Your task to perform on an android device: Open Maps and search for coffee Image 0: 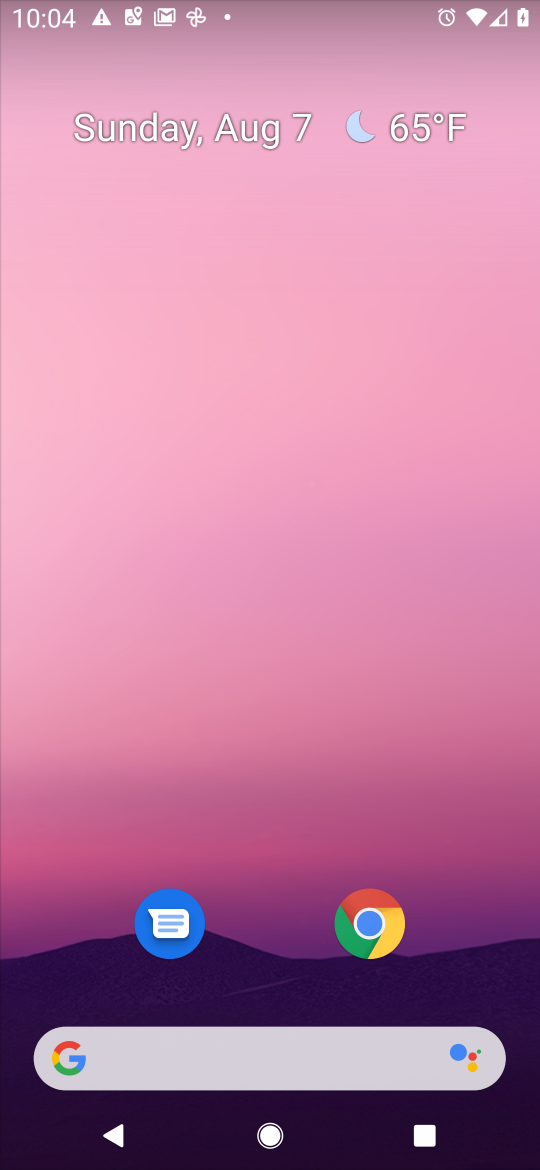
Step 0: drag from (479, 939) to (256, 98)
Your task to perform on an android device: Open Maps and search for coffee Image 1: 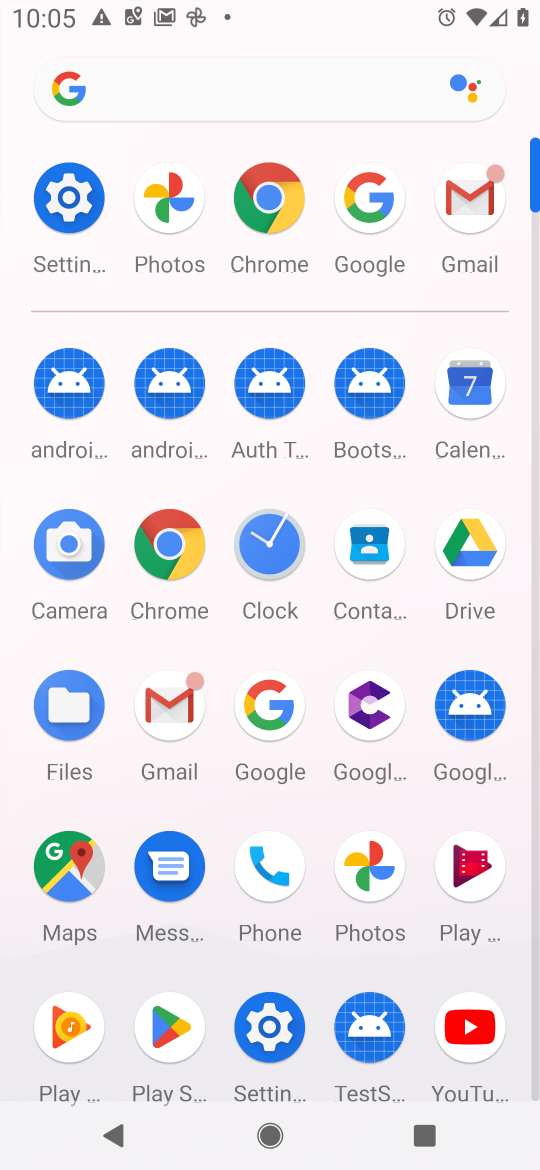
Step 1: click (62, 859)
Your task to perform on an android device: Open Maps and search for coffee Image 2: 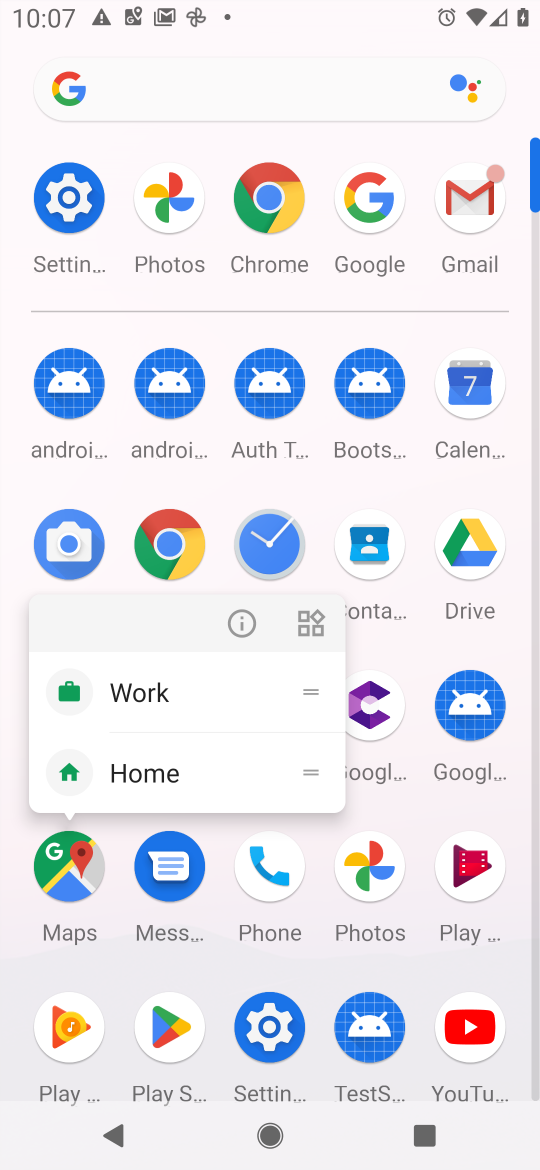
Step 2: click (65, 890)
Your task to perform on an android device: Open Maps and search for coffee Image 3: 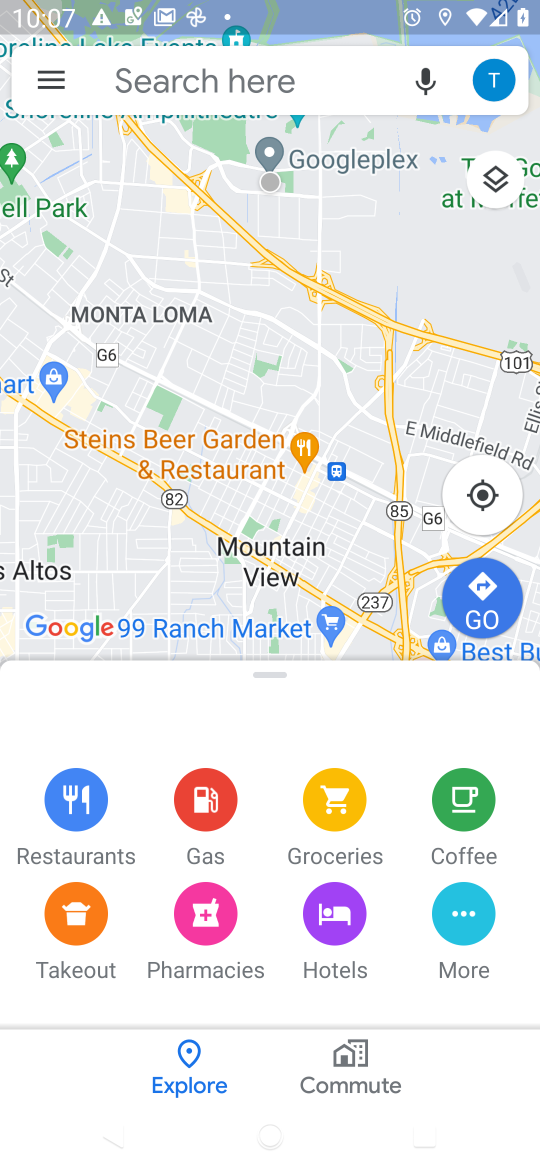
Step 3: click (196, 89)
Your task to perform on an android device: Open Maps and search for coffee Image 4: 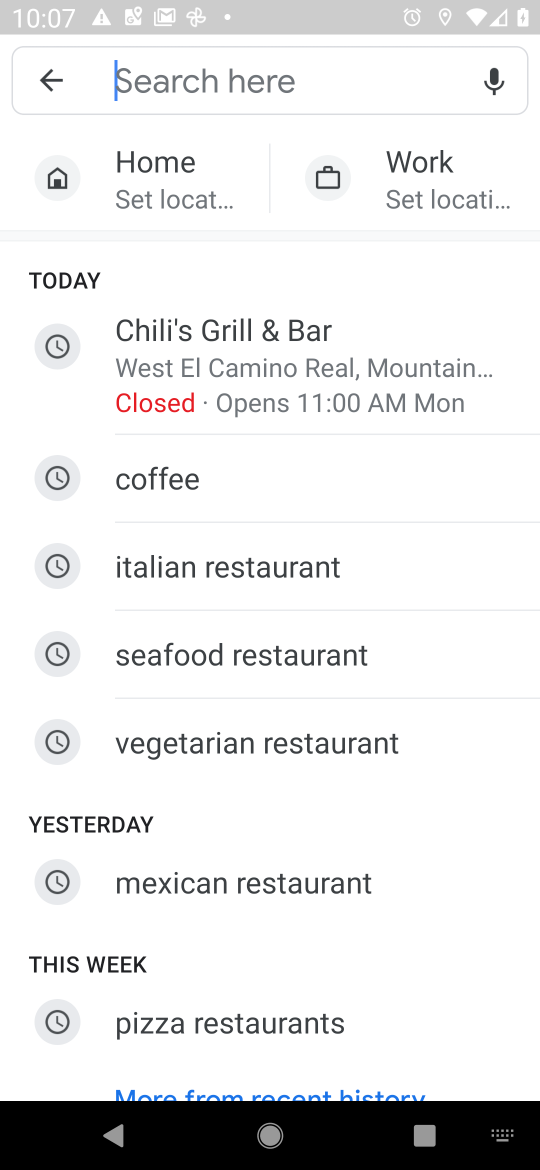
Step 4: click (206, 484)
Your task to perform on an android device: Open Maps and search for coffee Image 5: 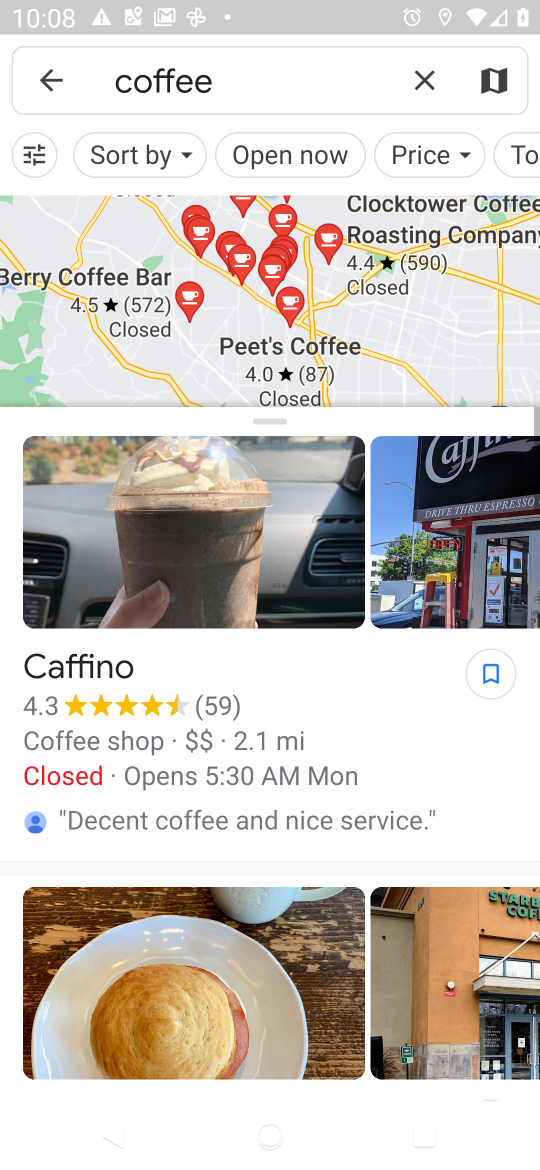
Step 5: task complete